Your task to perform on an android device: turn pop-ups off in chrome Image 0: 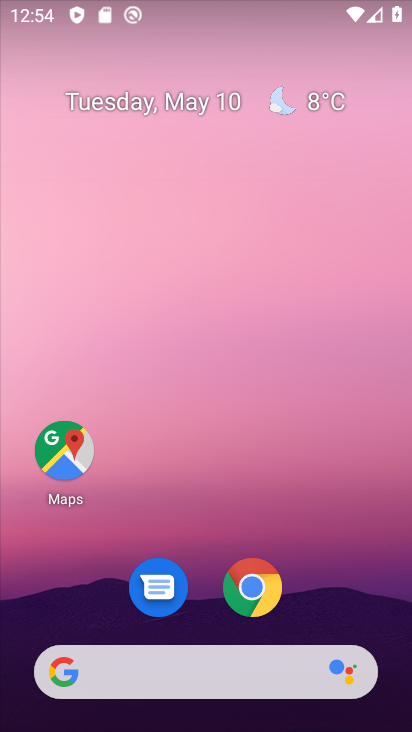
Step 0: click (267, 578)
Your task to perform on an android device: turn pop-ups off in chrome Image 1: 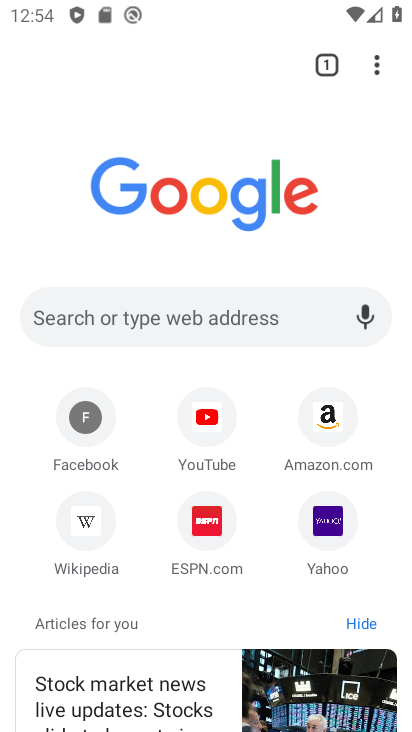
Step 1: click (379, 69)
Your task to perform on an android device: turn pop-ups off in chrome Image 2: 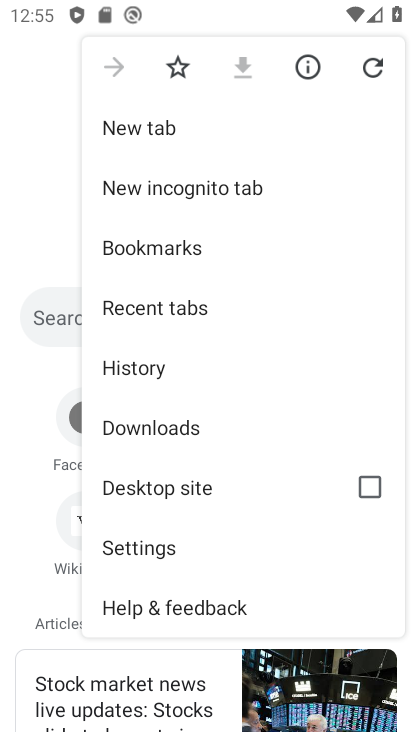
Step 2: click (178, 542)
Your task to perform on an android device: turn pop-ups off in chrome Image 3: 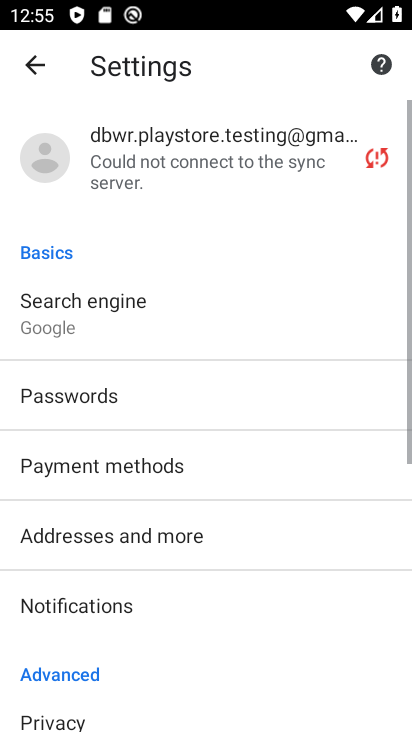
Step 3: drag from (237, 588) to (201, 330)
Your task to perform on an android device: turn pop-ups off in chrome Image 4: 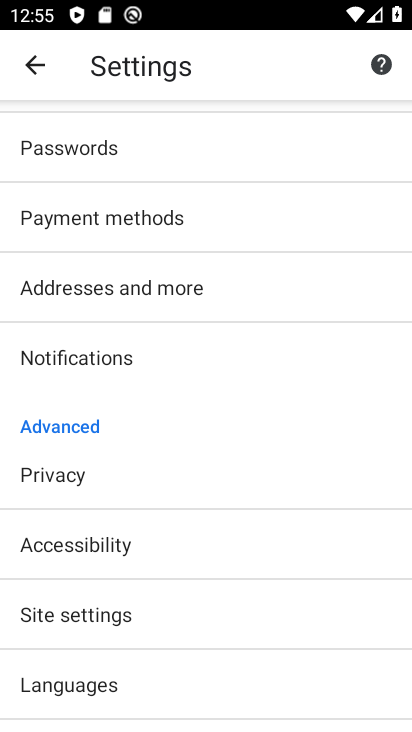
Step 4: click (182, 622)
Your task to perform on an android device: turn pop-ups off in chrome Image 5: 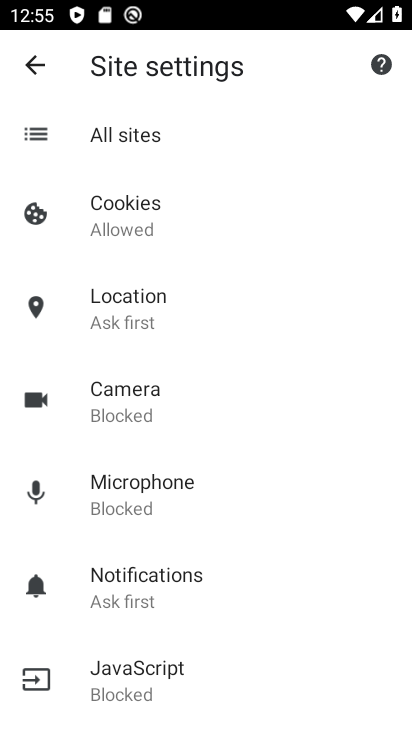
Step 5: drag from (197, 642) to (164, 295)
Your task to perform on an android device: turn pop-ups off in chrome Image 6: 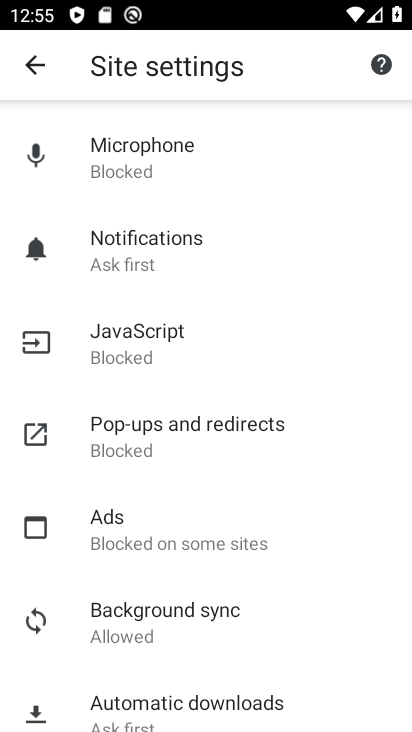
Step 6: click (172, 428)
Your task to perform on an android device: turn pop-ups off in chrome Image 7: 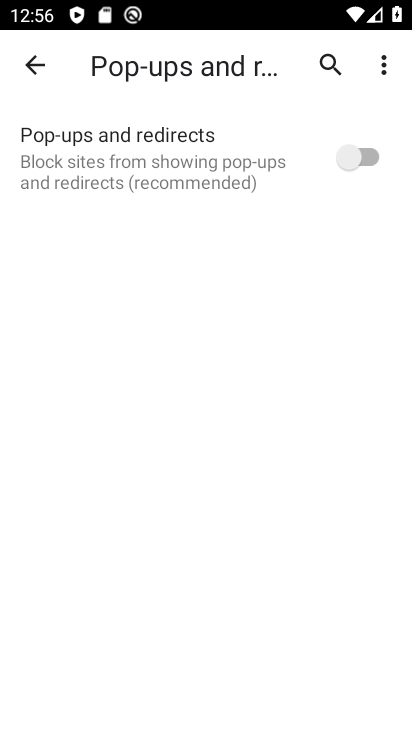
Step 7: task complete